Your task to perform on an android device: Go to display settings Image 0: 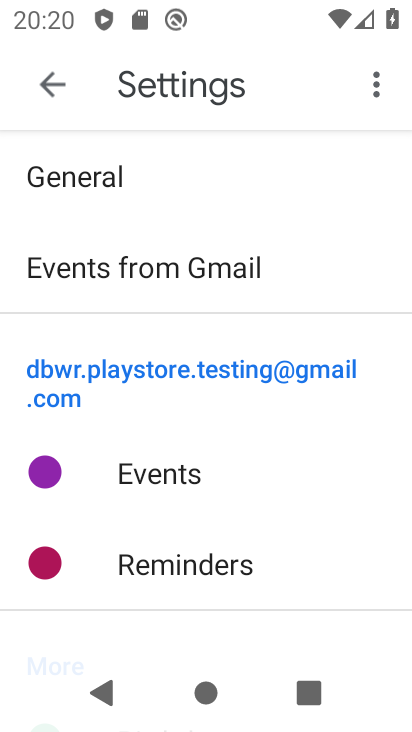
Step 0: press home button
Your task to perform on an android device: Go to display settings Image 1: 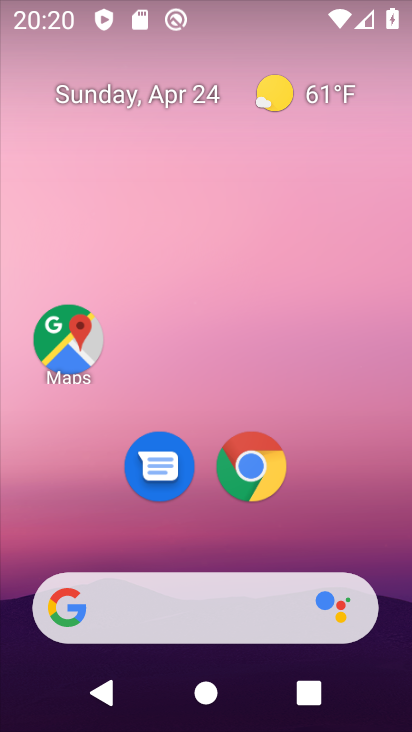
Step 1: drag from (198, 543) to (285, 2)
Your task to perform on an android device: Go to display settings Image 2: 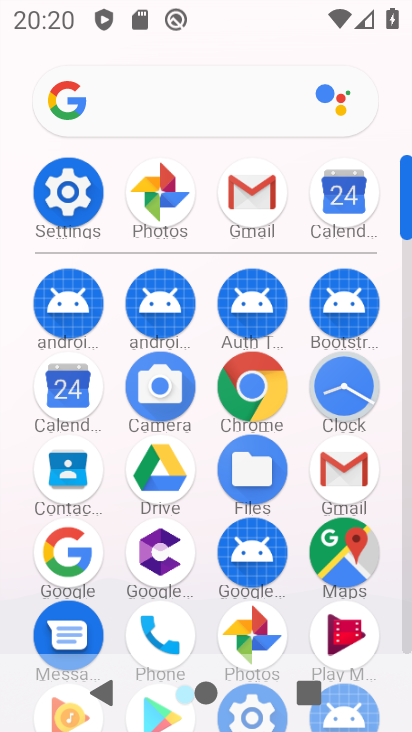
Step 2: click (68, 209)
Your task to perform on an android device: Go to display settings Image 3: 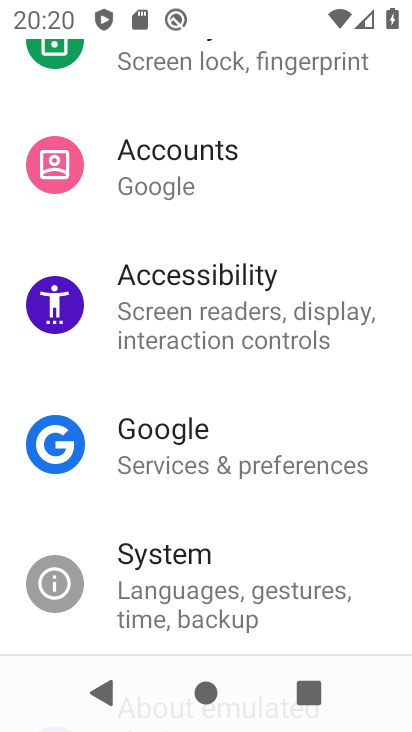
Step 3: drag from (211, 198) to (161, 660)
Your task to perform on an android device: Go to display settings Image 4: 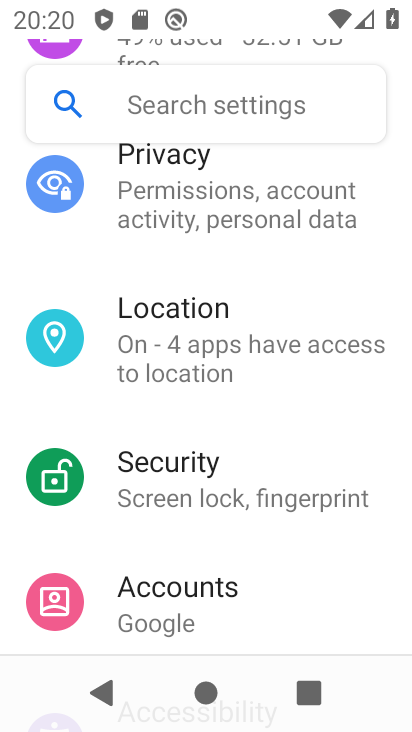
Step 4: drag from (234, 340) to (196, 644)
Your task to perform on an android device: Go to display settings Image 5: 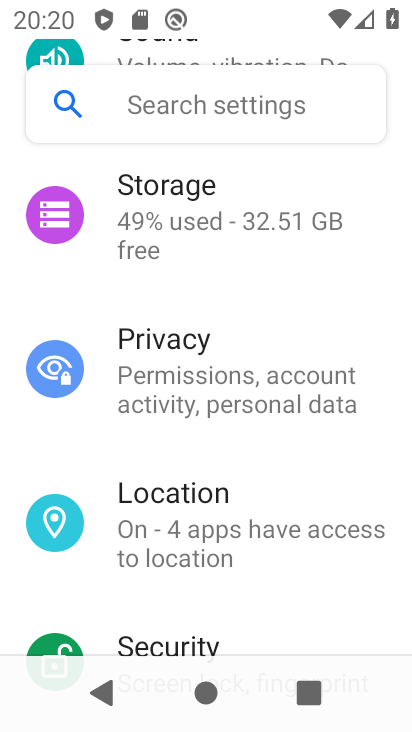
Step 5: drag from (219, 286) to (217, 697)
Your task to perform on an android device: Go to display settings Image 6: 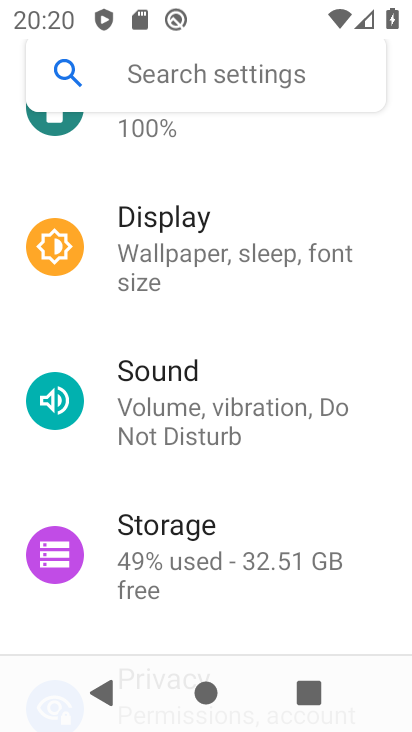
Step 6: click (185, 269)
Your task to perform on an android device: Go to display settings Image 7: 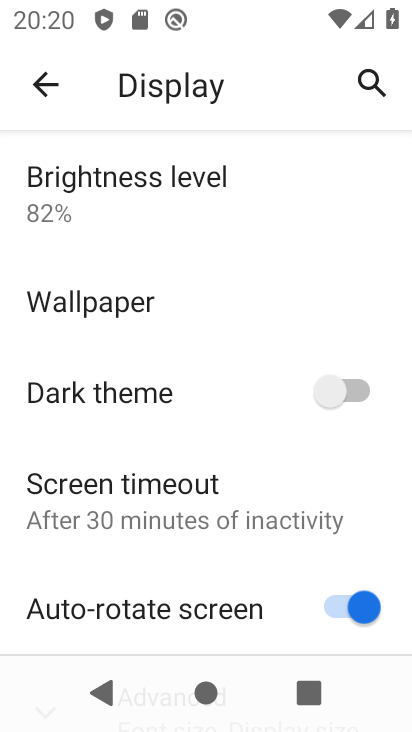
Step 7: task complete